Your task to perform on an android device: Open CNN.com Image 0: 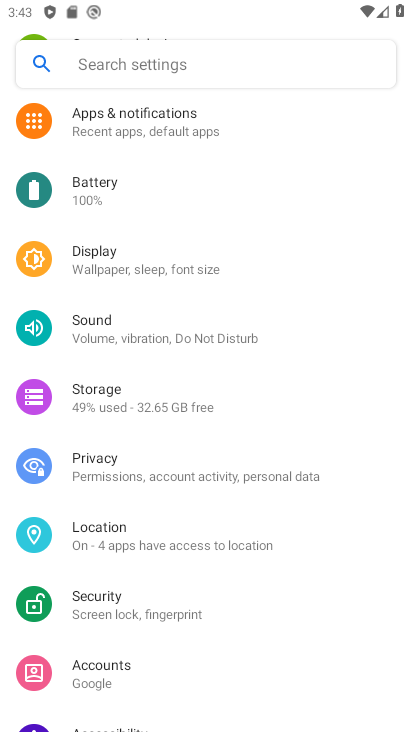
Step 0: press back button
Your task to perform on an android device: Open CNN.com Image 1: 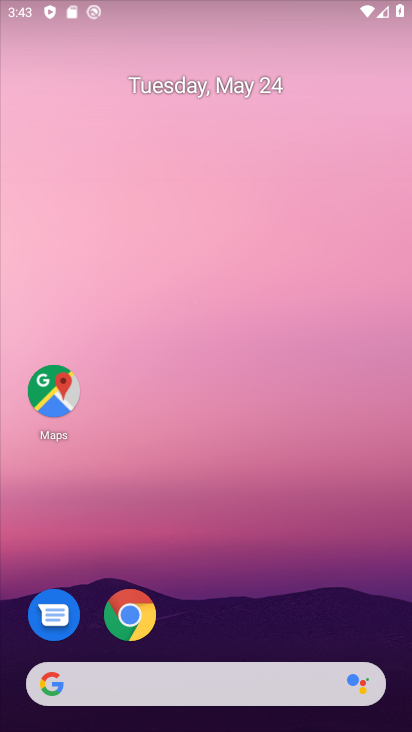
Step 1: drag from (225, 583) to (284, 2)
Your task to perform on an android device: Open CNN.com Image 2: 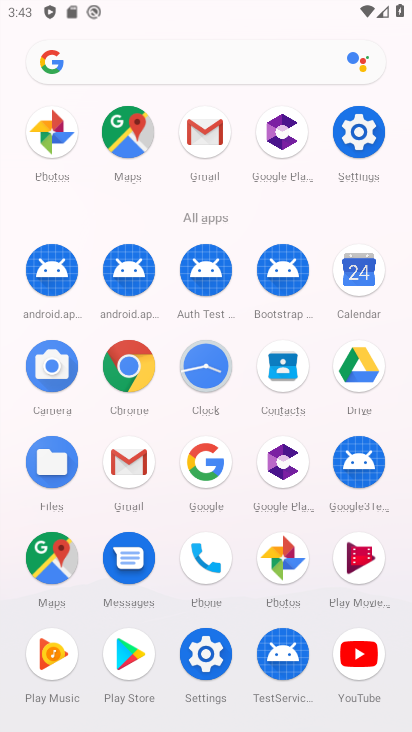
Step 2: click (120, 372)
Your task to perform on an android device: Open CNN.com Image 3: 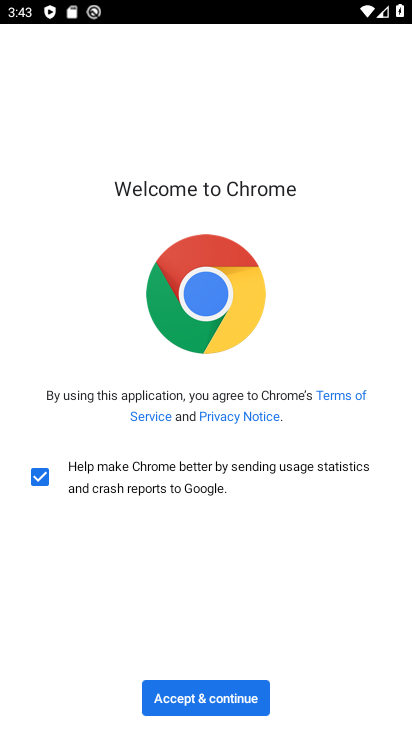
Step 3: click (197, 703)
Your task to perform on an android device: Open CNN.com Image 4: 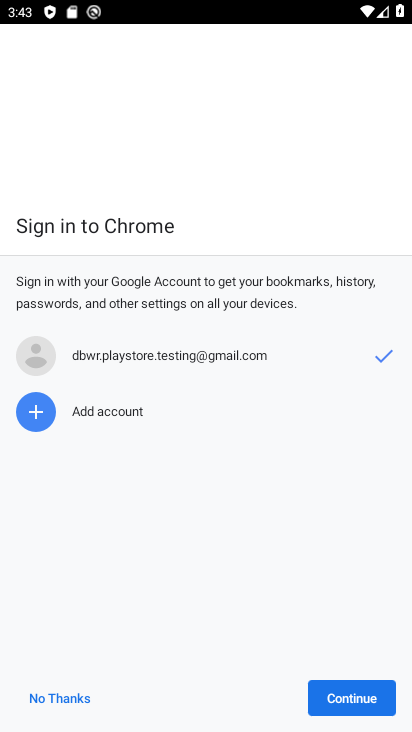
Step 4: click (344, 700)
Your task to perform on an android device: Open CNN.com Image 5: 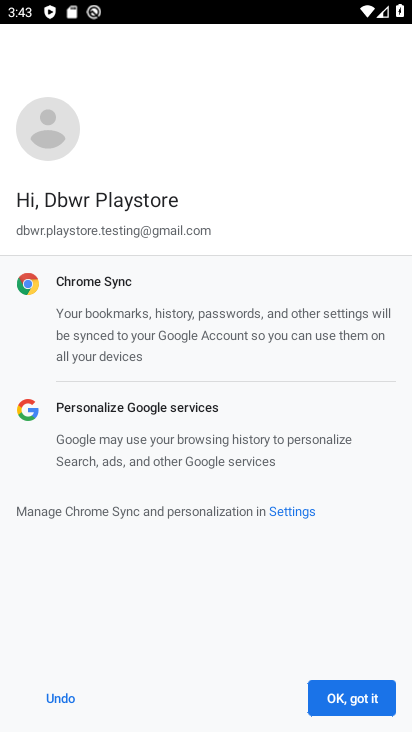
Step 5: click (344, 700)
Your task to perform on an android device: Open CNN.com Image 6: 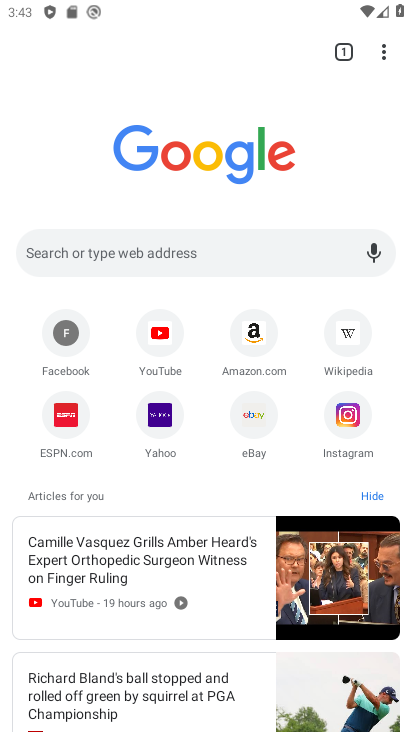
Step 6: click (170, 249)
Your task to perform on an android device: Open CNN.com Image 7: 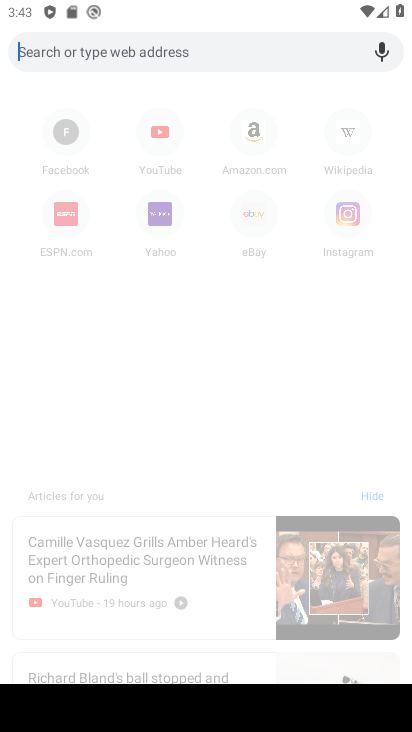
Step 7: type " CNN.com"
Your task to perform on an android device: Open CNN.com Image 8: 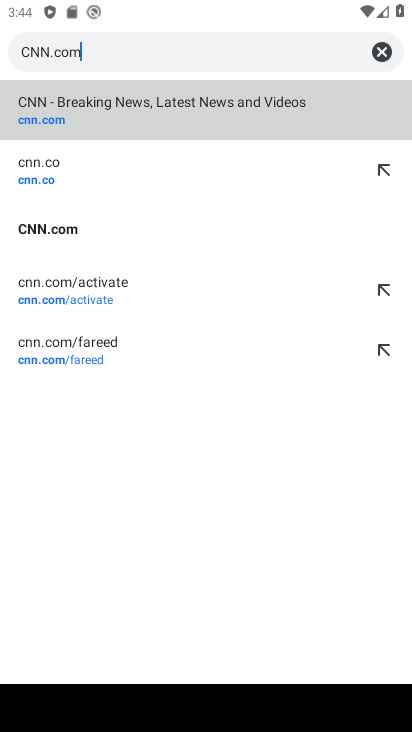
Step 8: type ""
Your task to perform on an android device: Open CNN.com Image 9: 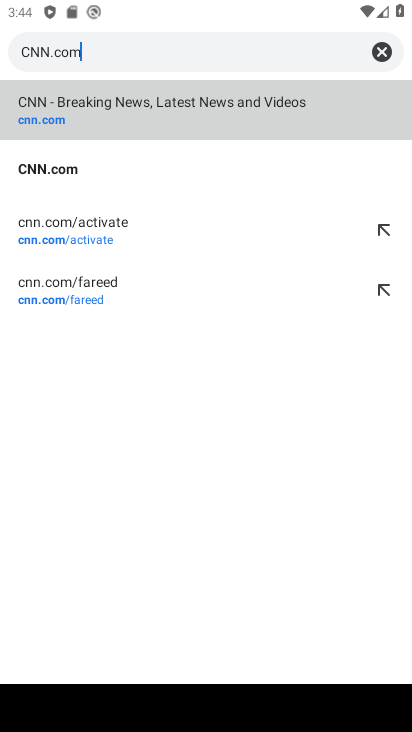
Step 9: click (61, 111)
Your task to perform on an android device: Open CNN.com Image 10: 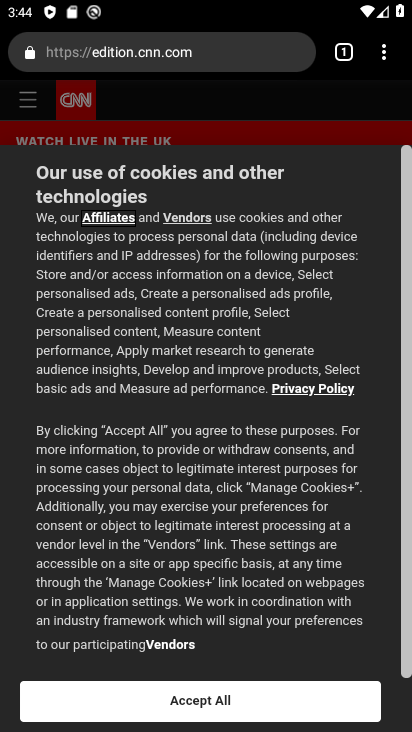
Step 10: click (196, 692)
Your task to perform on an android device: Open CNN.com Image 11: 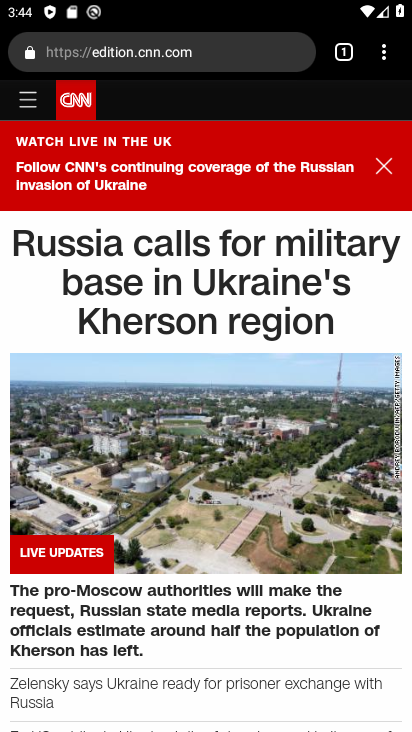
Step 11: task complete